Your task to perform on an android device: Show me the alarms in the clock app Image 0: 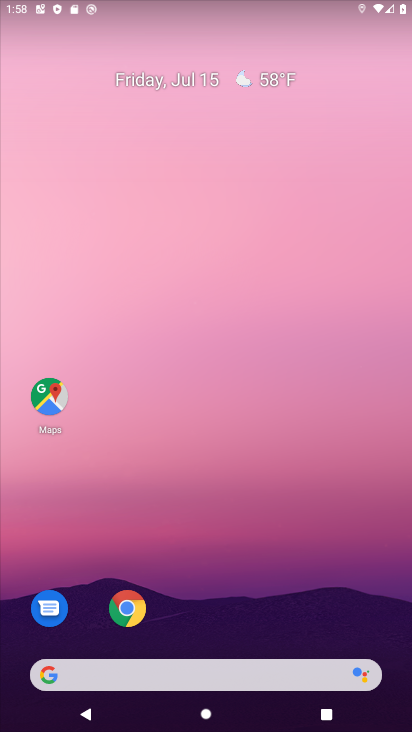
Step 0: drag from (232, 622) to (321, 14)
Your task to perform on an android device: Show me the alarms in the clock app Image 1: 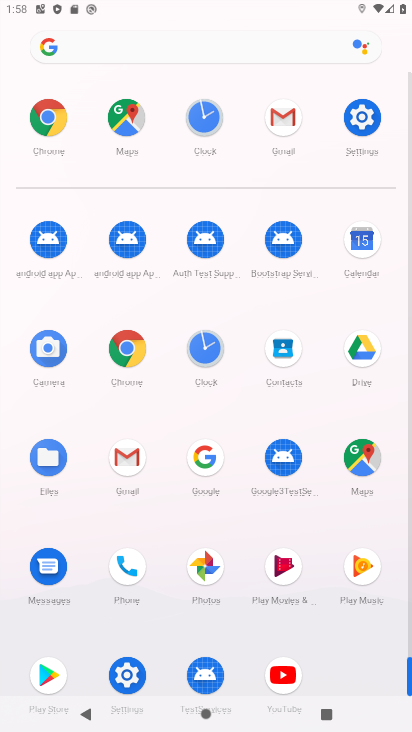
Step 1: click (217, 334)
Your task to perform on an android device: Show me the alarms in the clock app Image 2: 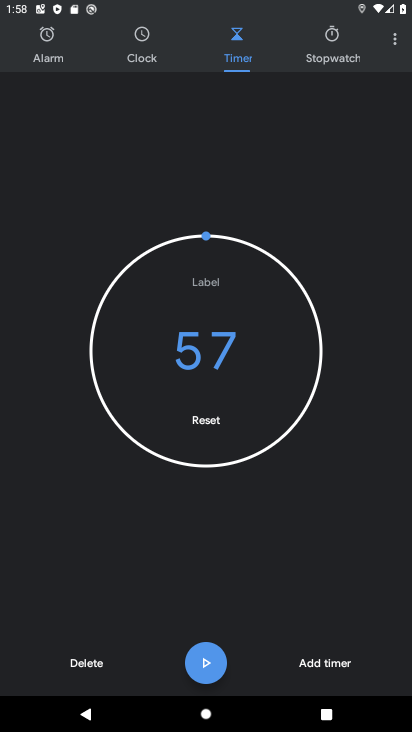
Step 2: click (50, 37)
Your task to perform on an android device: Show me the alarms in the clock app Image 3: 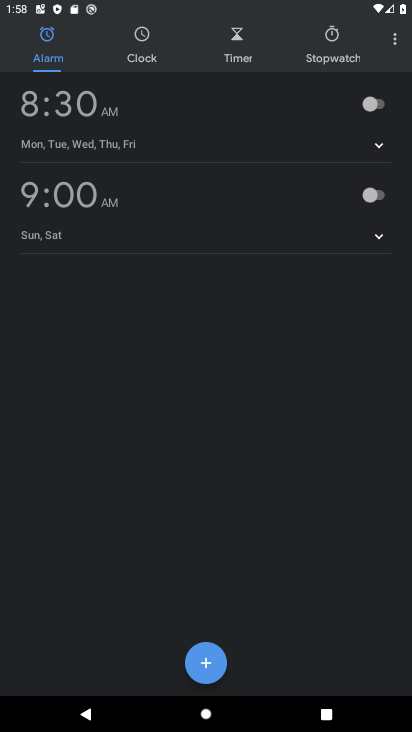
Step 3: task complete